Your task to perform on an android device: add a label to a message in the gmail app Image 0: 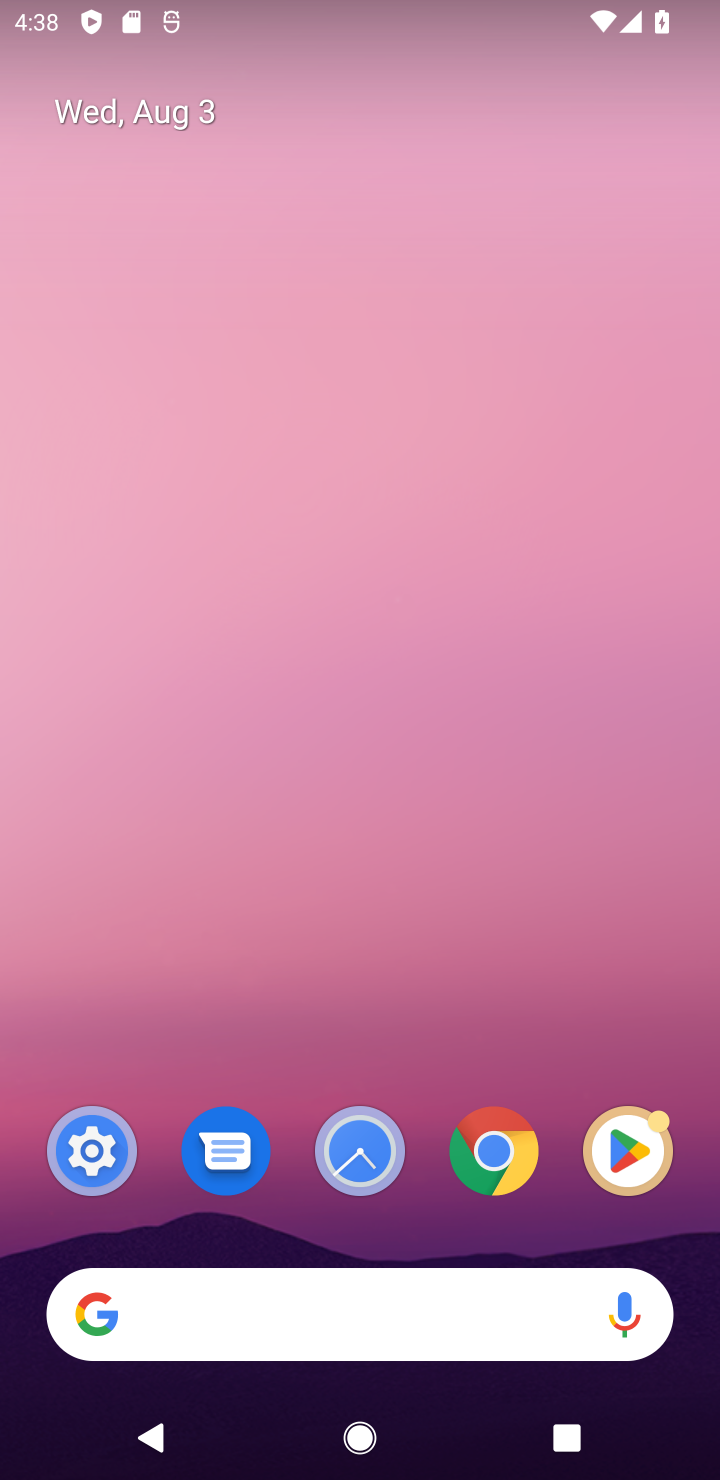
Step 0: drag from (472, 1373) to (501, 856)
Your task to perform on an android device: add a label to a message in the gmail app Image 1: 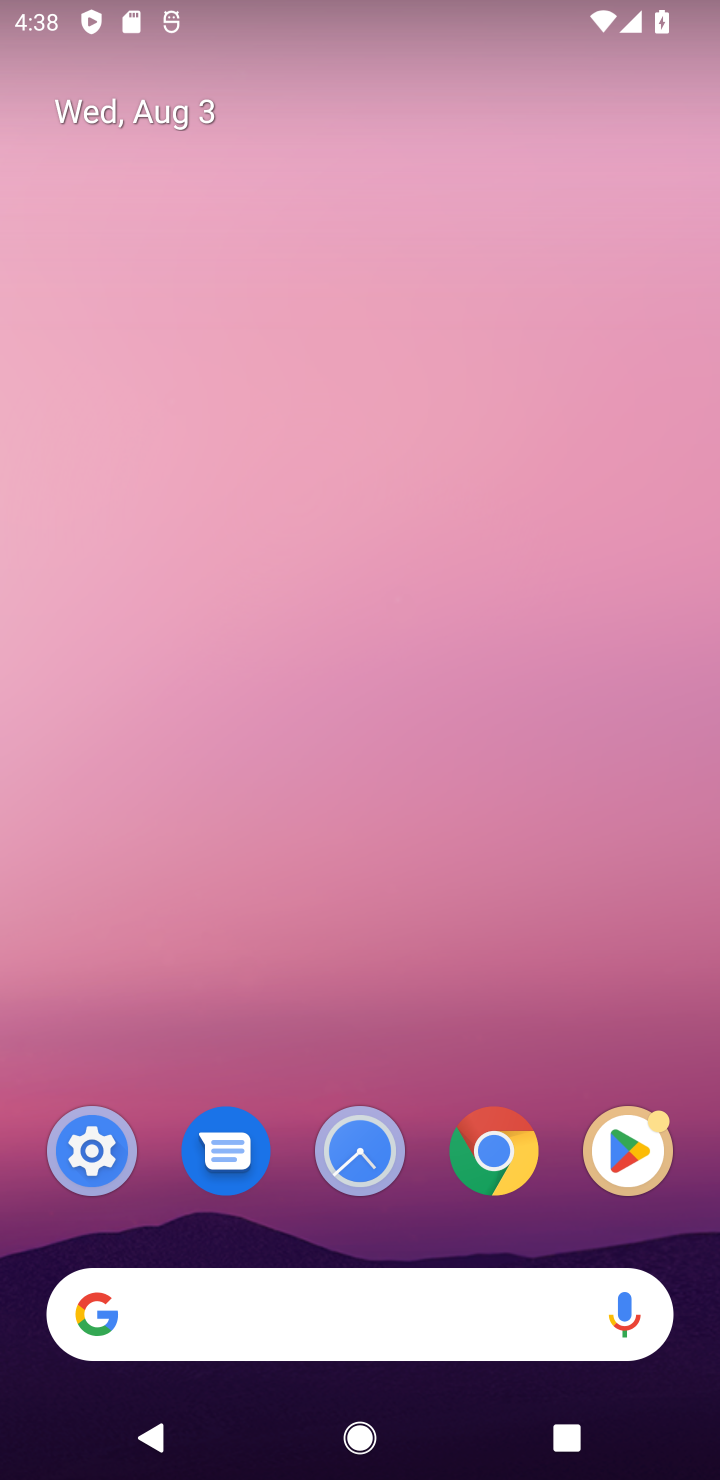
Step 1: drag from (466, 1069) to (358, 692)
Your task to perform on an android device: add a label to a message in the gmail app Image 2: 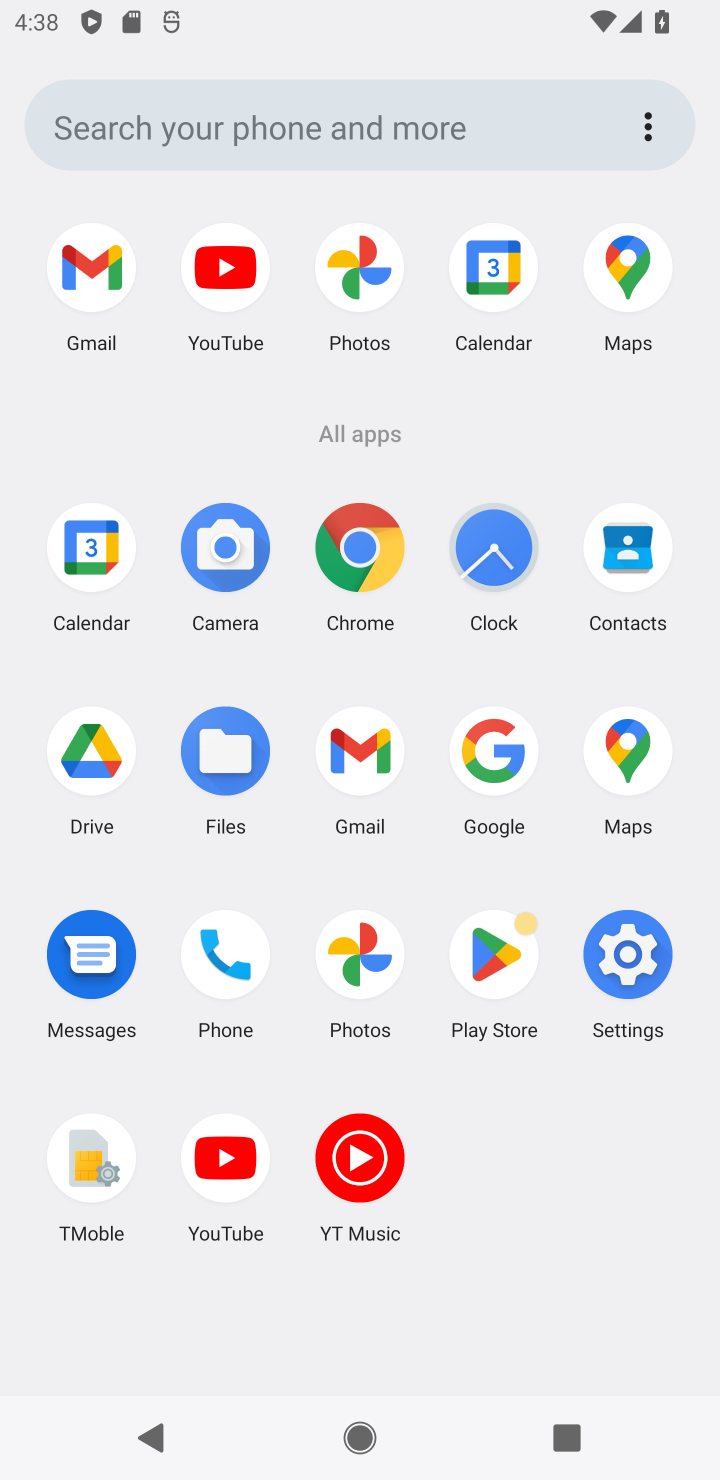
Step 2: drag from (314, 673) to (295, 516)
Your task to perform on an android device: add a label to a message in the gmail app Image 3: 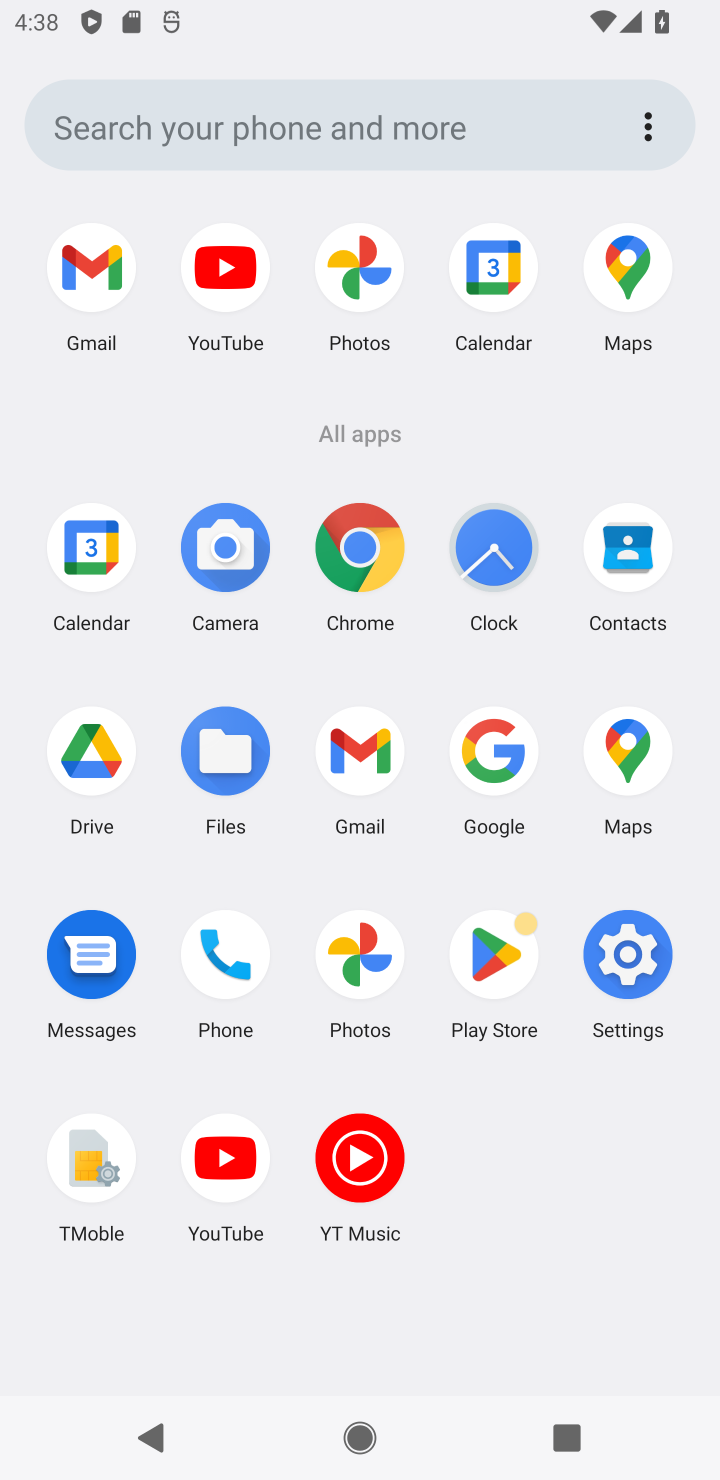
Step 3: click (136, 131)
Your task to perform on an android device: add a label to a message in the gmail app Image 4: 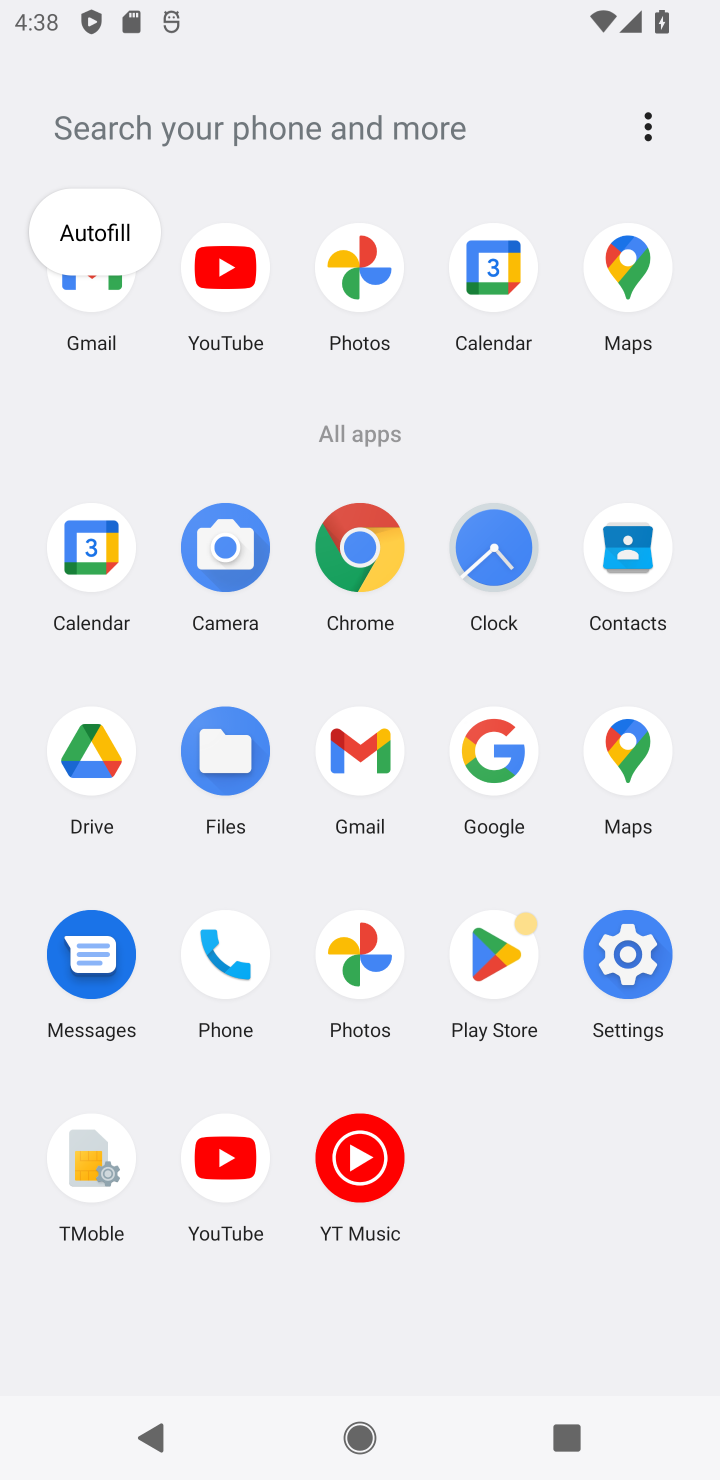
Step 4: click (356, 750)
Your task to perform on an android device: add a label to a message in the gmail app Image 5: 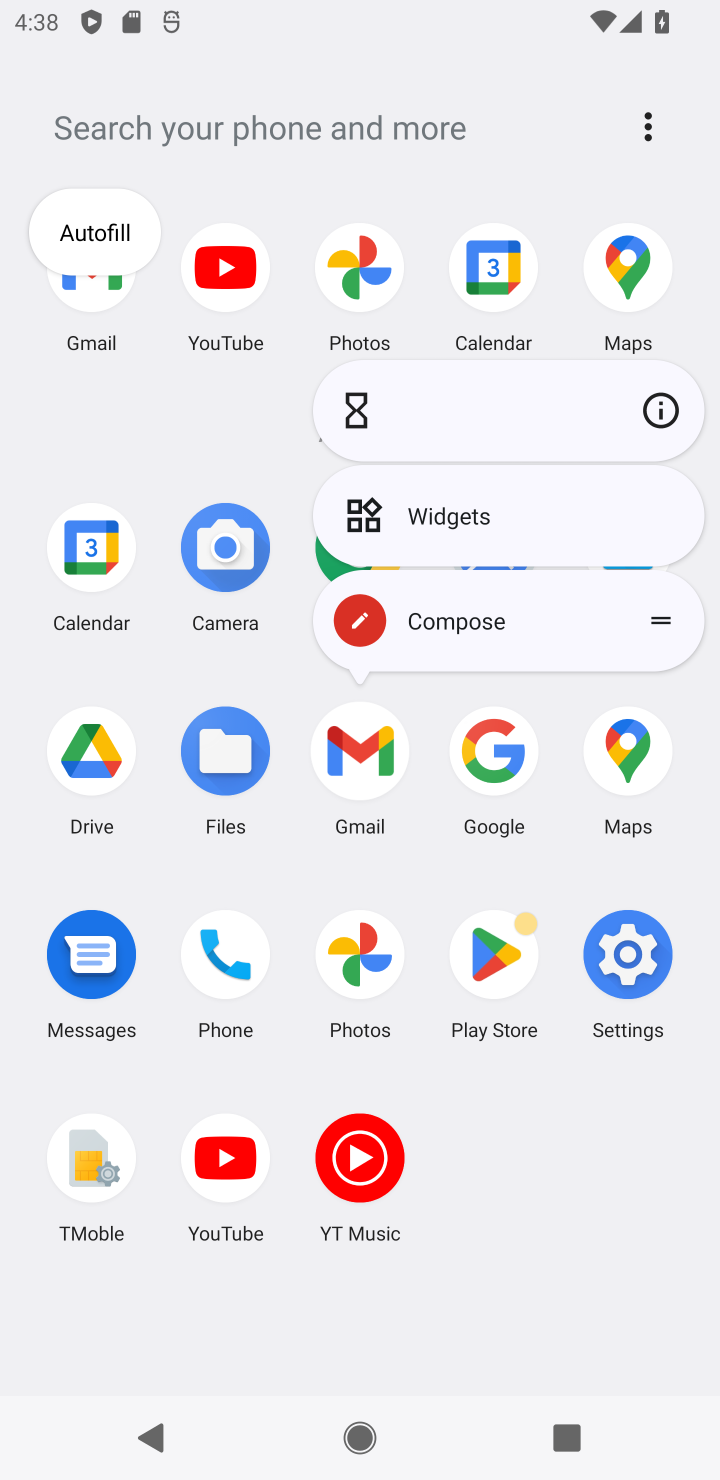
Step 5: click (356, 750)
Your task to perform on an android device: add a label to a message in the gmail app Image 6: 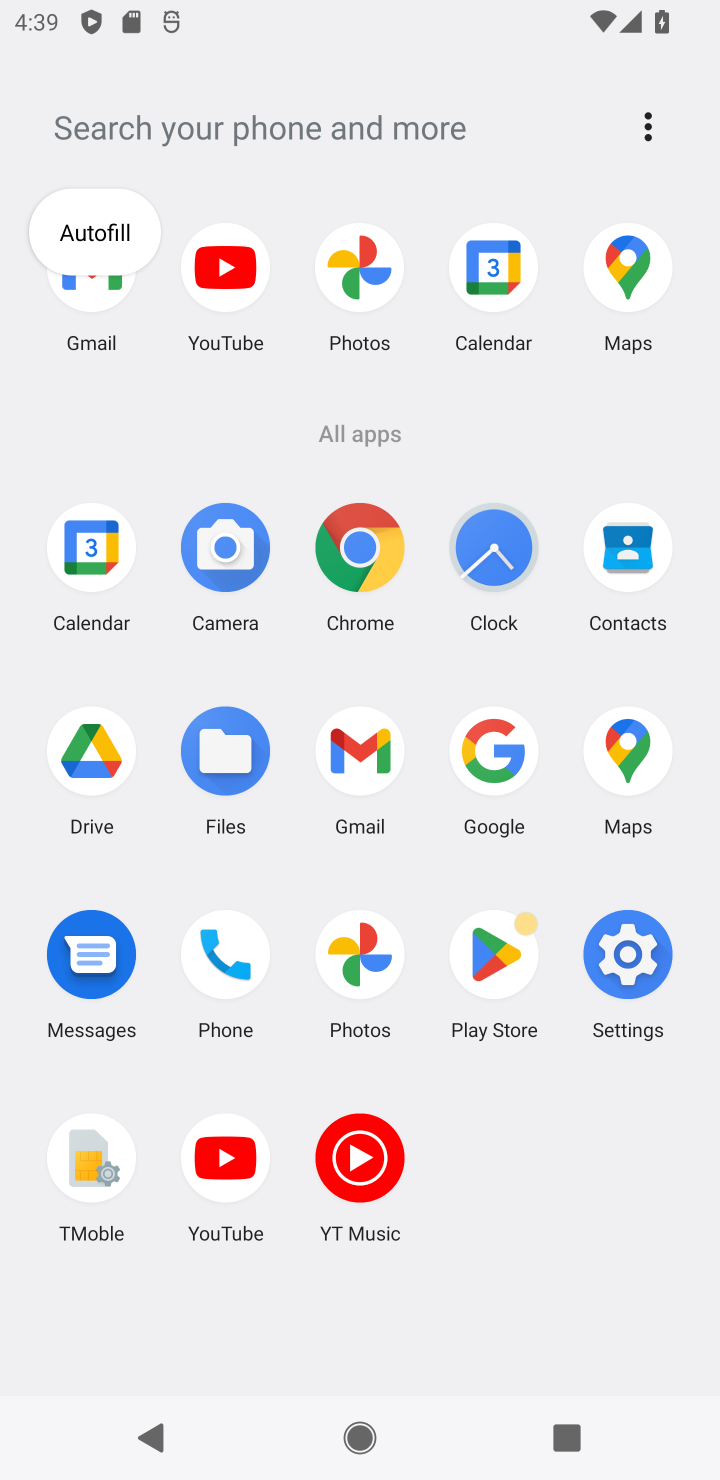
Step 6: click (374, 766)
Your task to perform on an android device: add a label to a message in the gmail app Image 7: 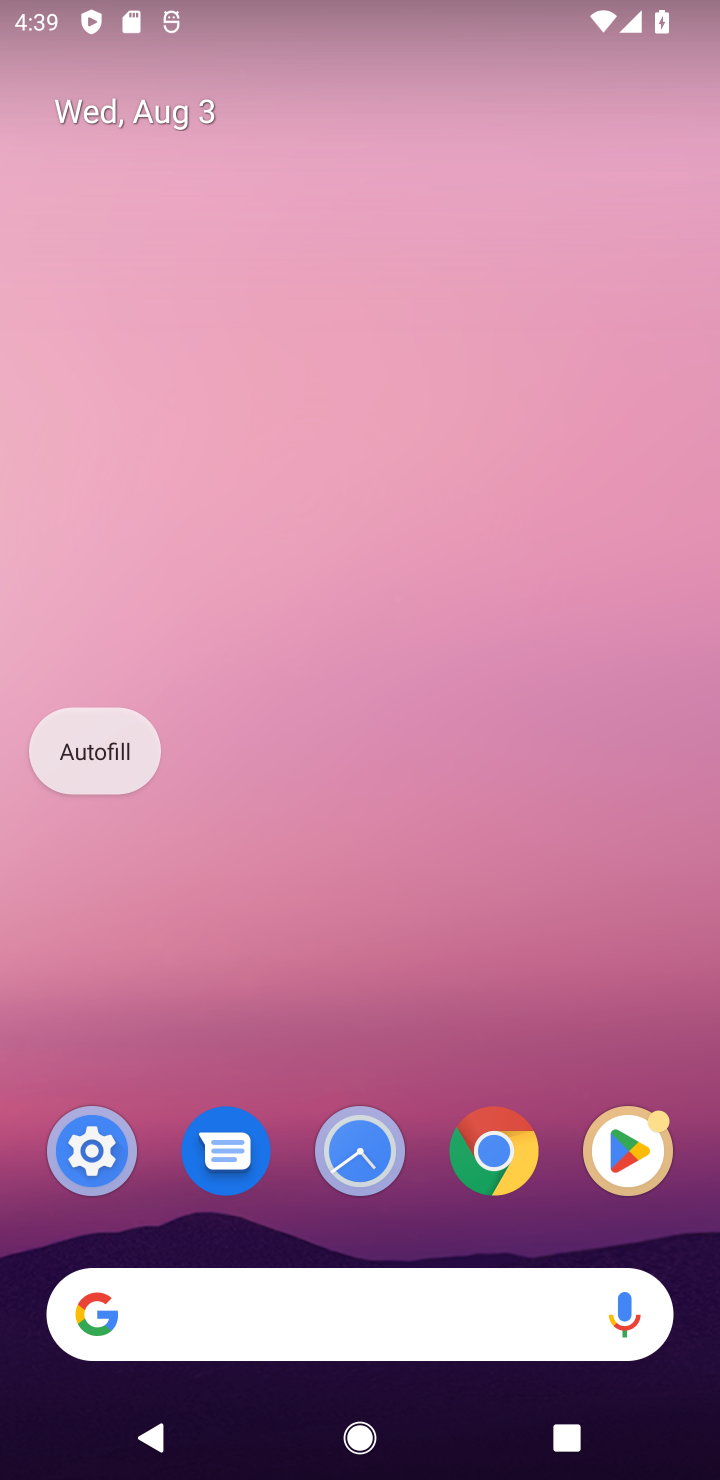
Step 7: click (345, 741)
Your task to perform on an android device: add a label to a message in the gmail app Image 8: 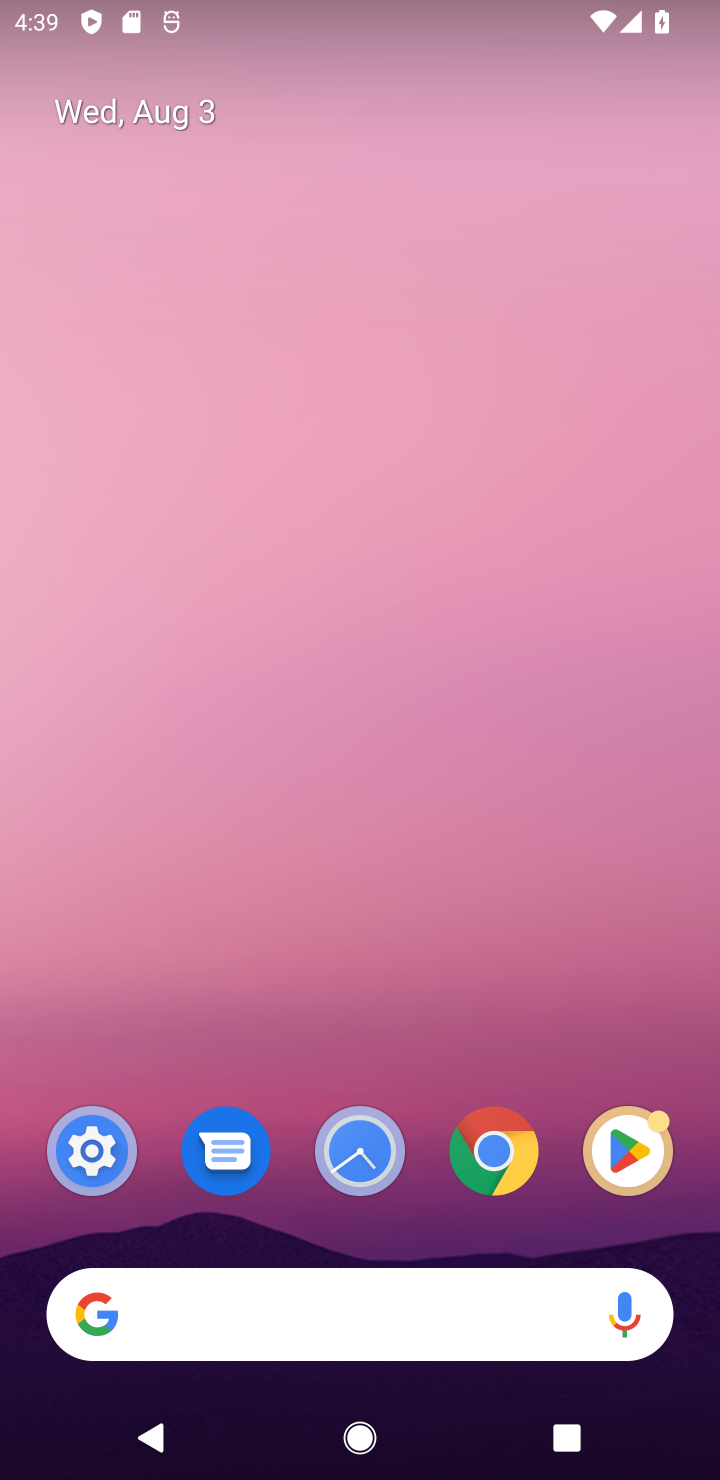
Step 8: drag from (461, 1183) to (264, 382)
Your task to perform on an android device: add a label to a message in the gmail app Image 9: 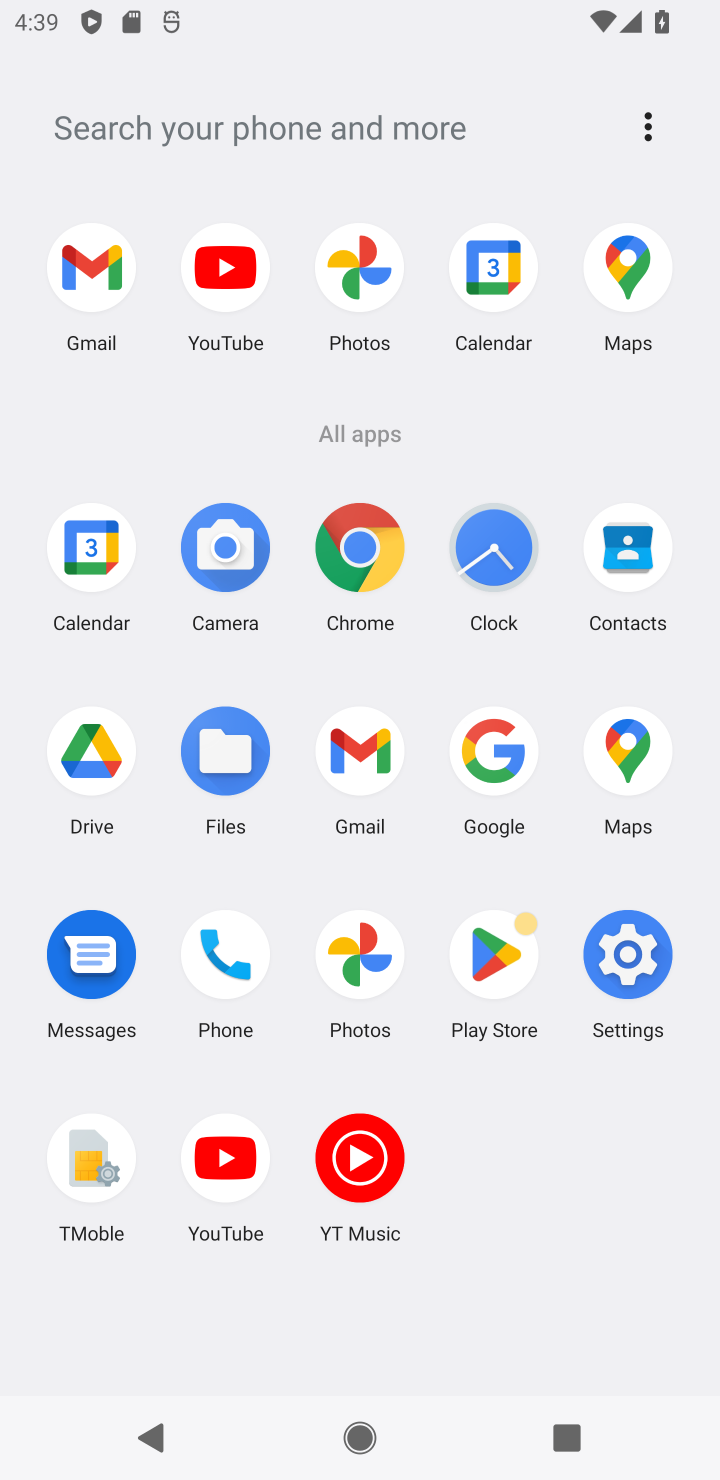
Step 9: click (343, 762)
Your task to perform on an android device: add a label to a message in the gmail app Image 10: 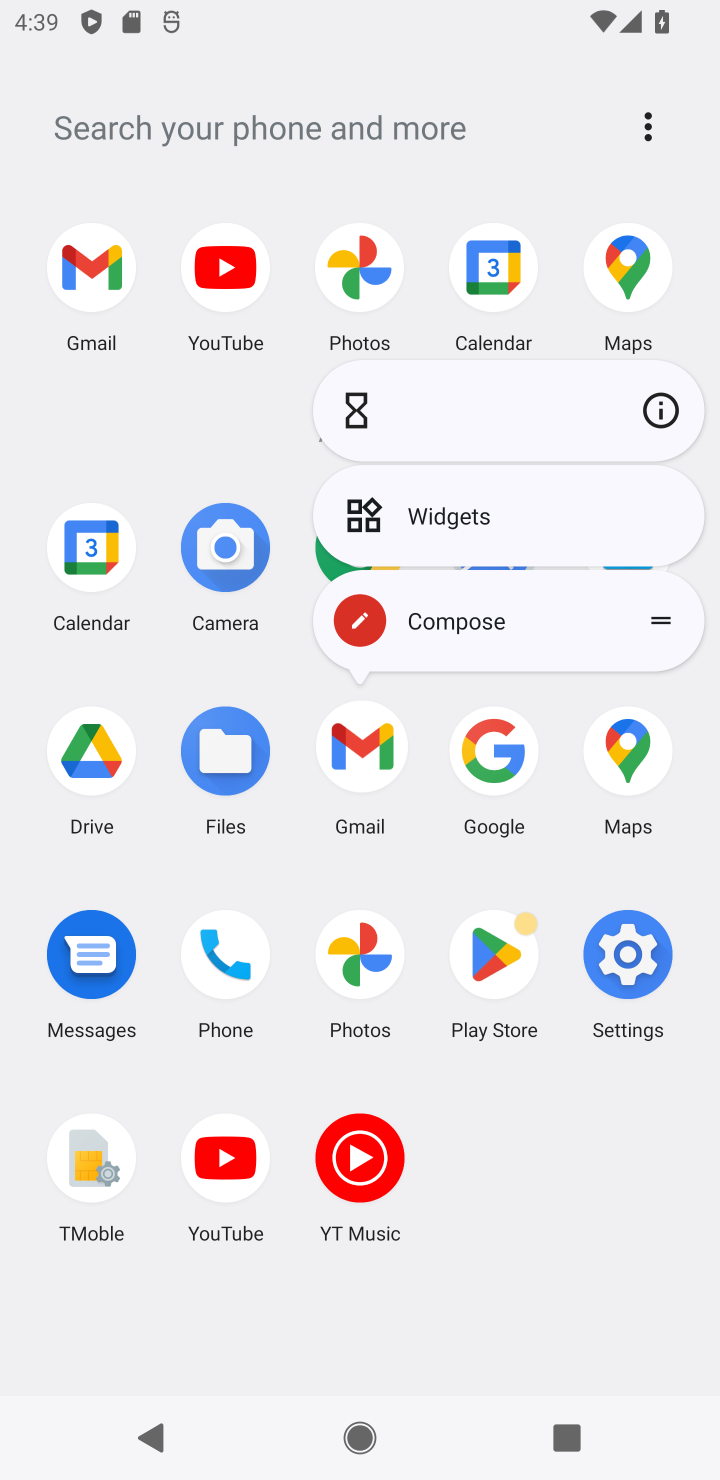
Step 10: click (355, 749)
Your task to perform on an android device: add a label to a message in the gmail app Image 11: 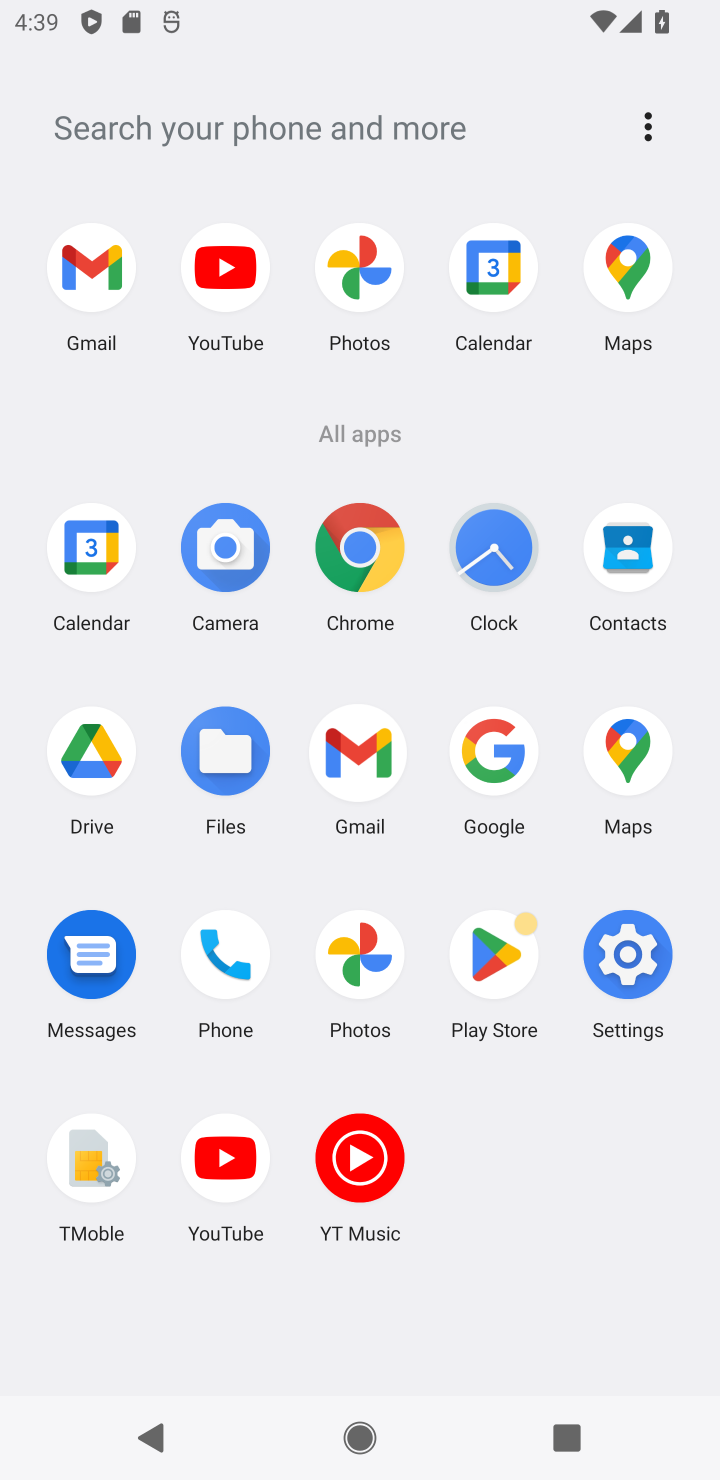
Step 11: click (338, 766)
Your task to perform on an android device: add a label to a message in the gmail app Image 12: 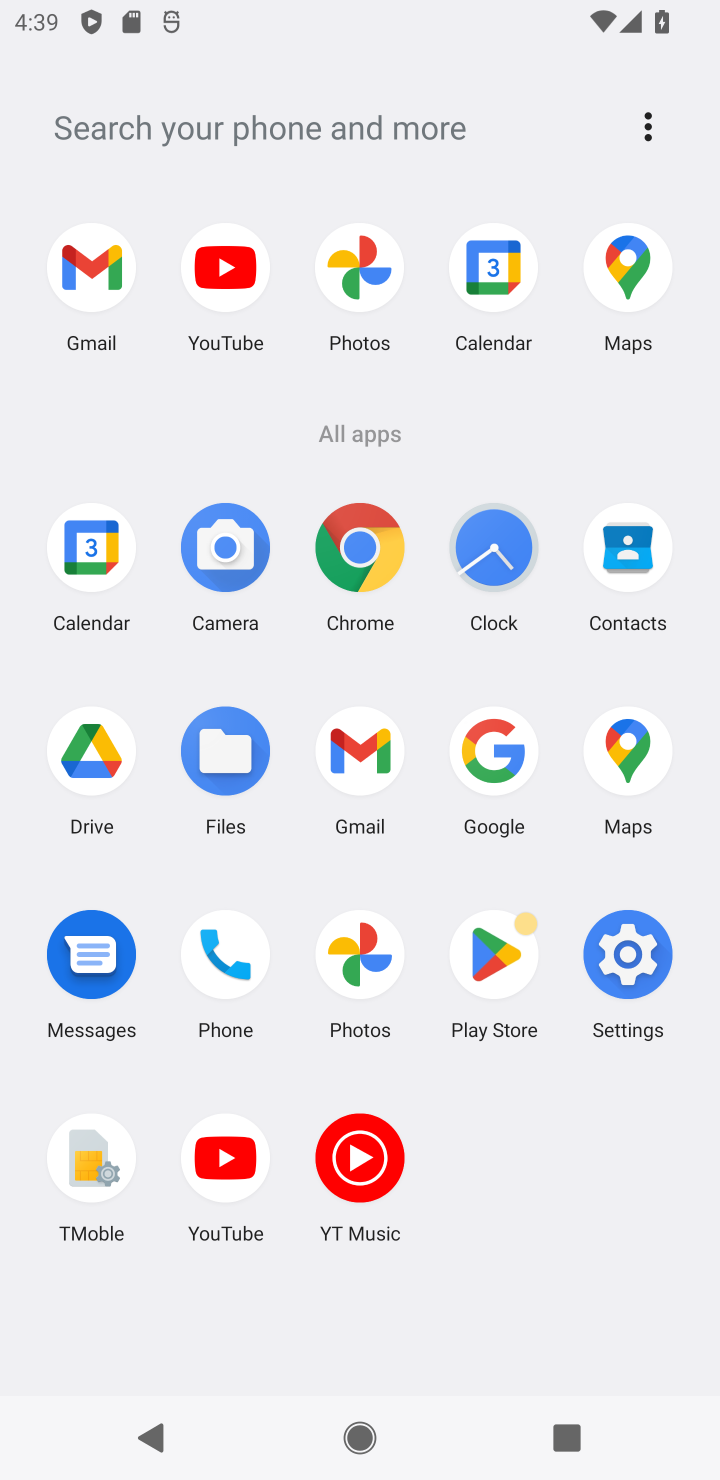
Step 12: click (338, 766)
Your task to perform on an android device: add a label to a message in the gmail app Image 13: 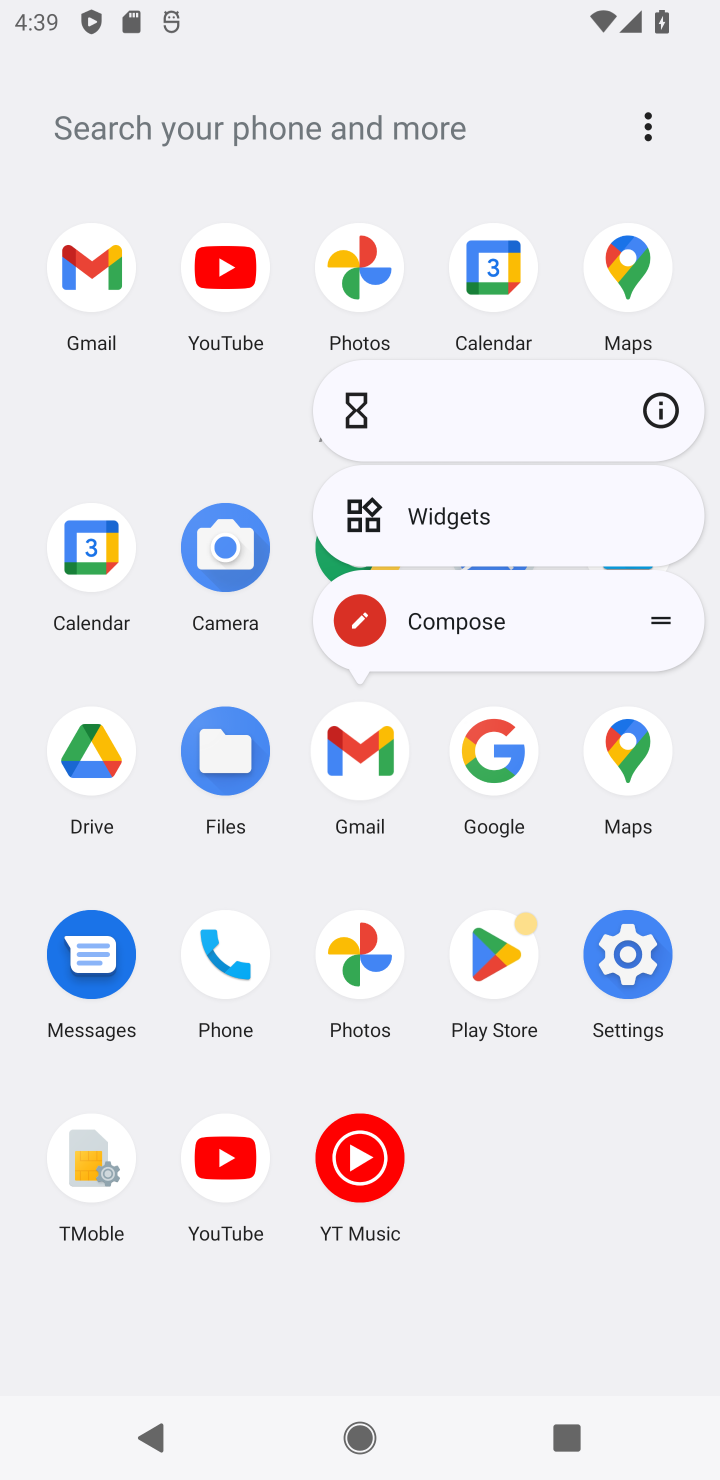
Step 13: click (363, 748)
Your task to perform on an android device: add a label to a message in the gmail app Image 14: 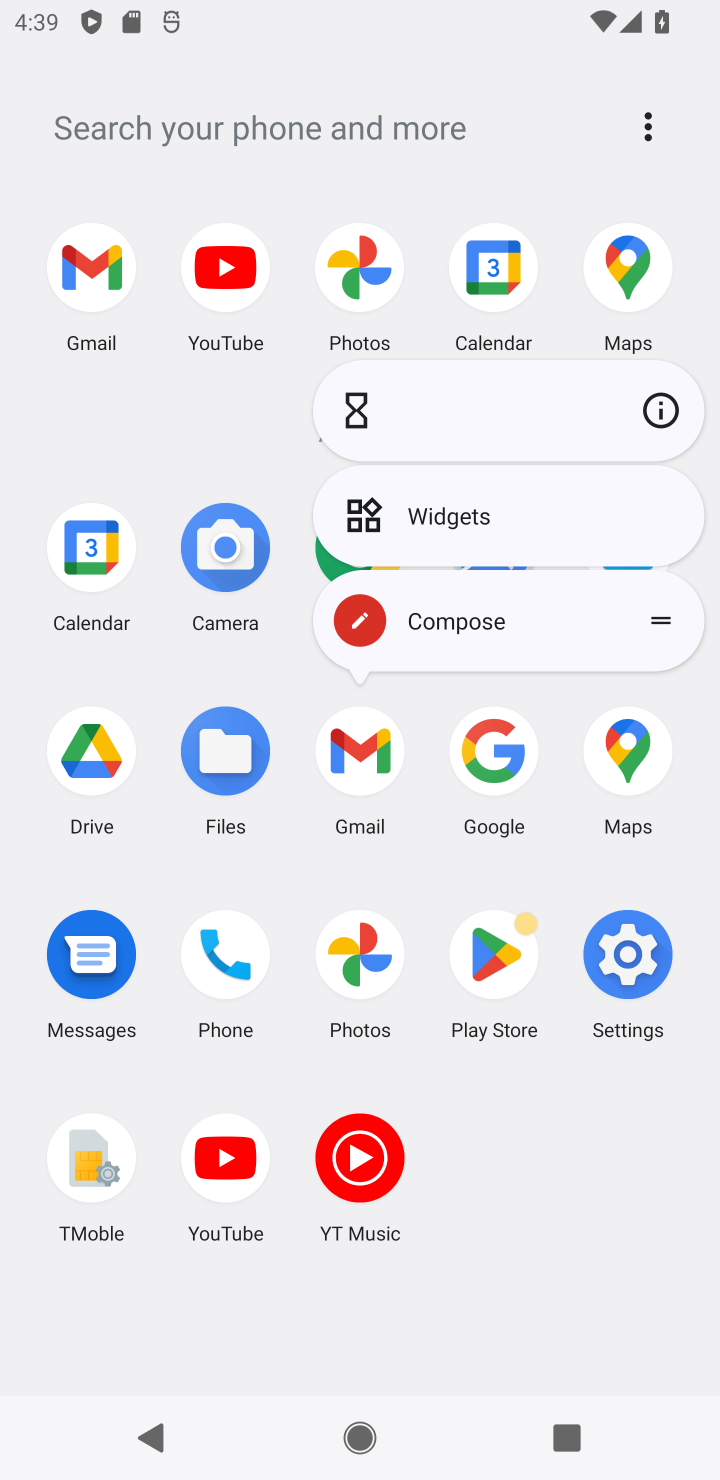
Step 14: click (367, 746)
Your task to perform on an android device: add a label to a message in the gmail app Image 15: 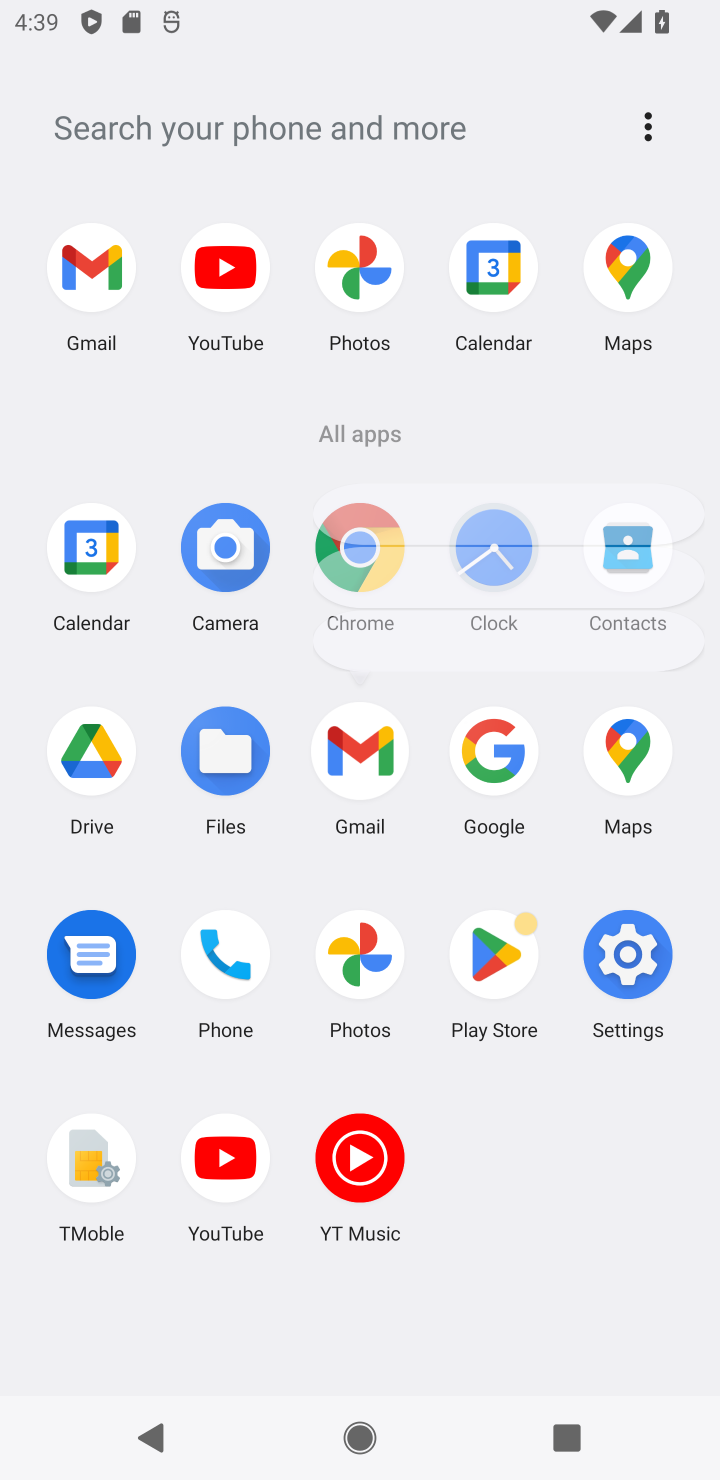
Step 15: click (429, 637)
Your task to perform on an android device: add a label to a message in the gmail app Image 16: 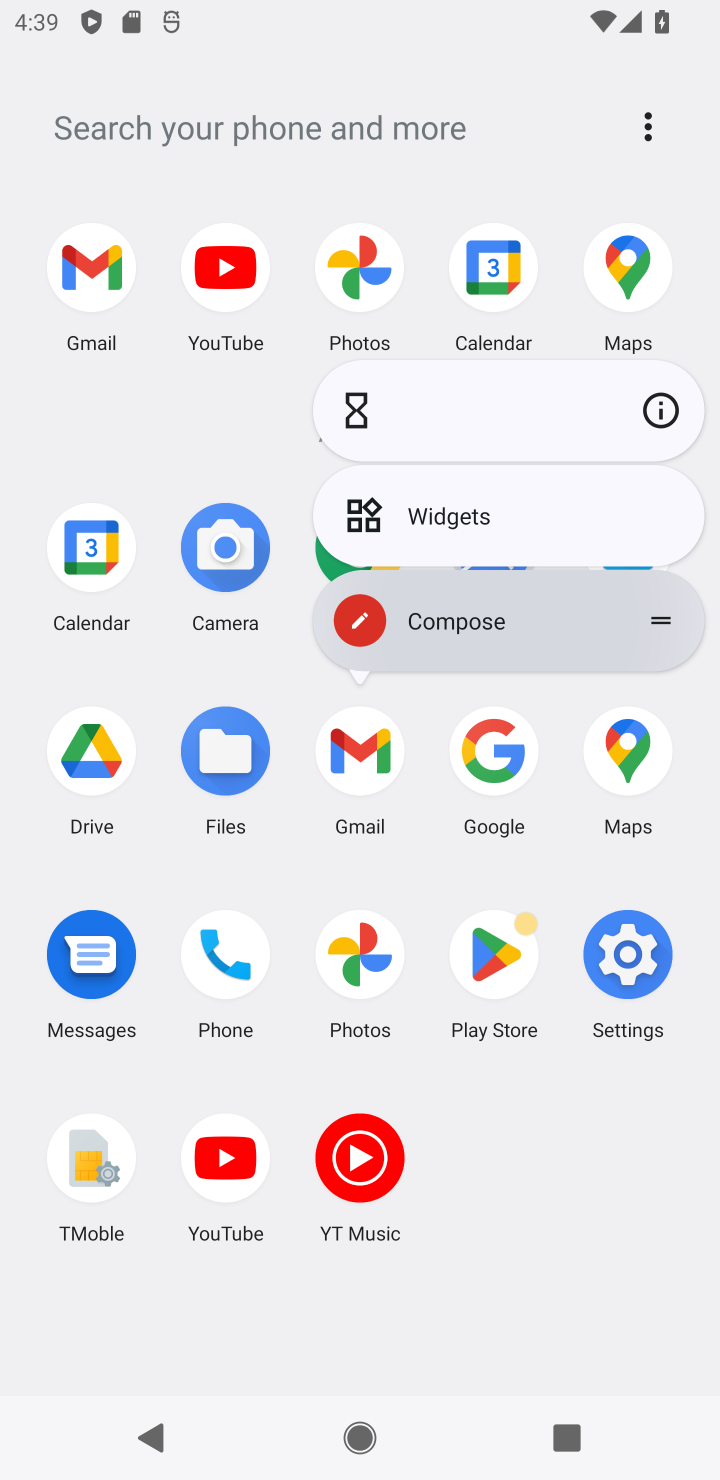
Step 16: click (446, 614)
Your task to perform on an android device: add a label to a message in the gmail app Image 17: 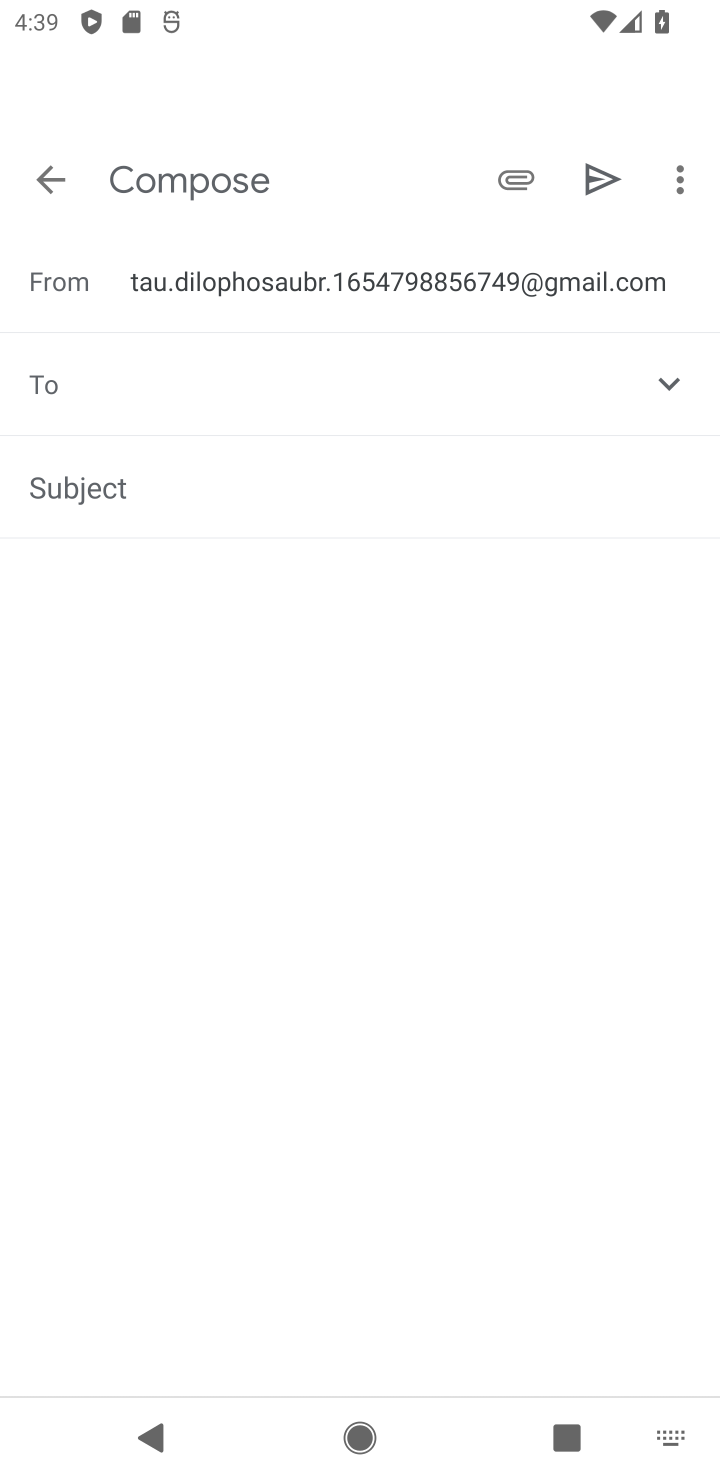
Step 17: click (40, 76)
Your task to perform on an android device: add a label to a message in the gmail app Image 18: 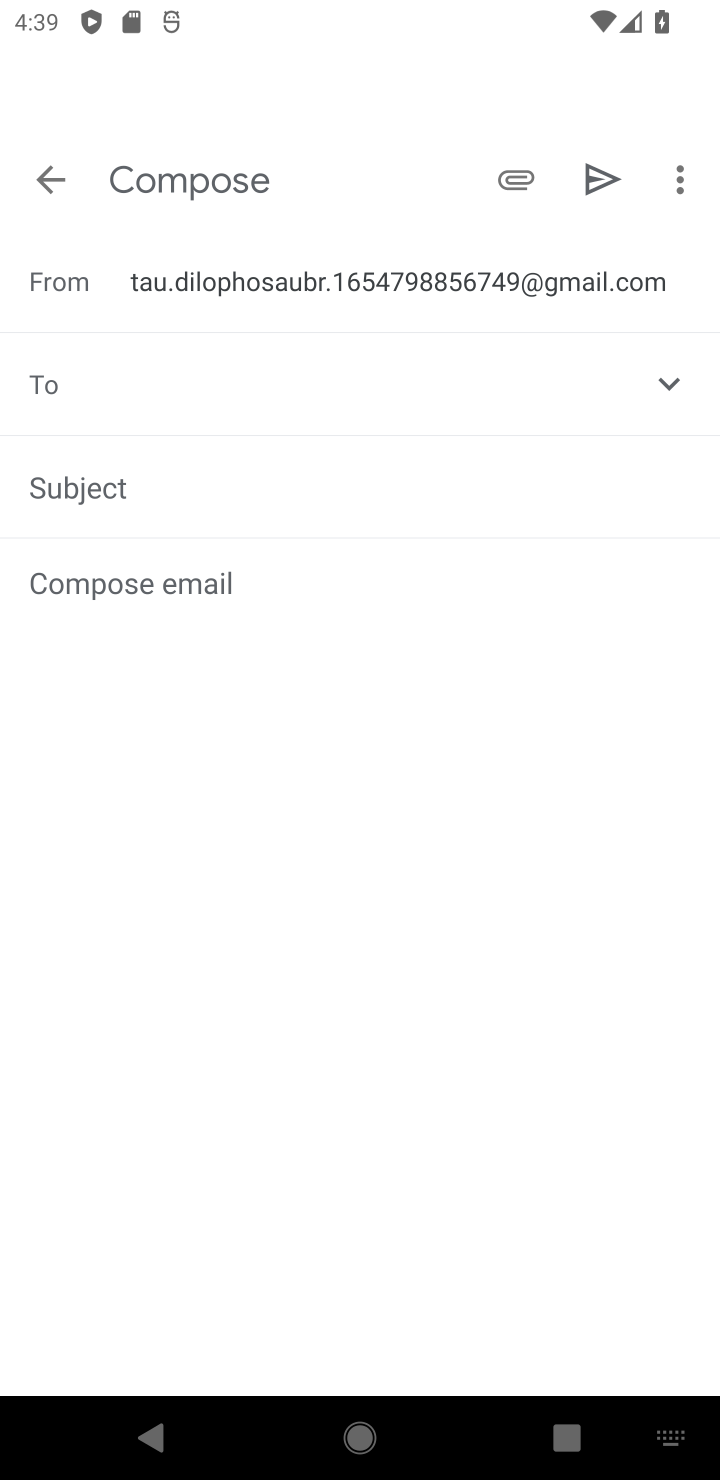
Step 18: click (57, 176)
Your task to perform on an android device: add a label to a message in the gmail app Image 19: 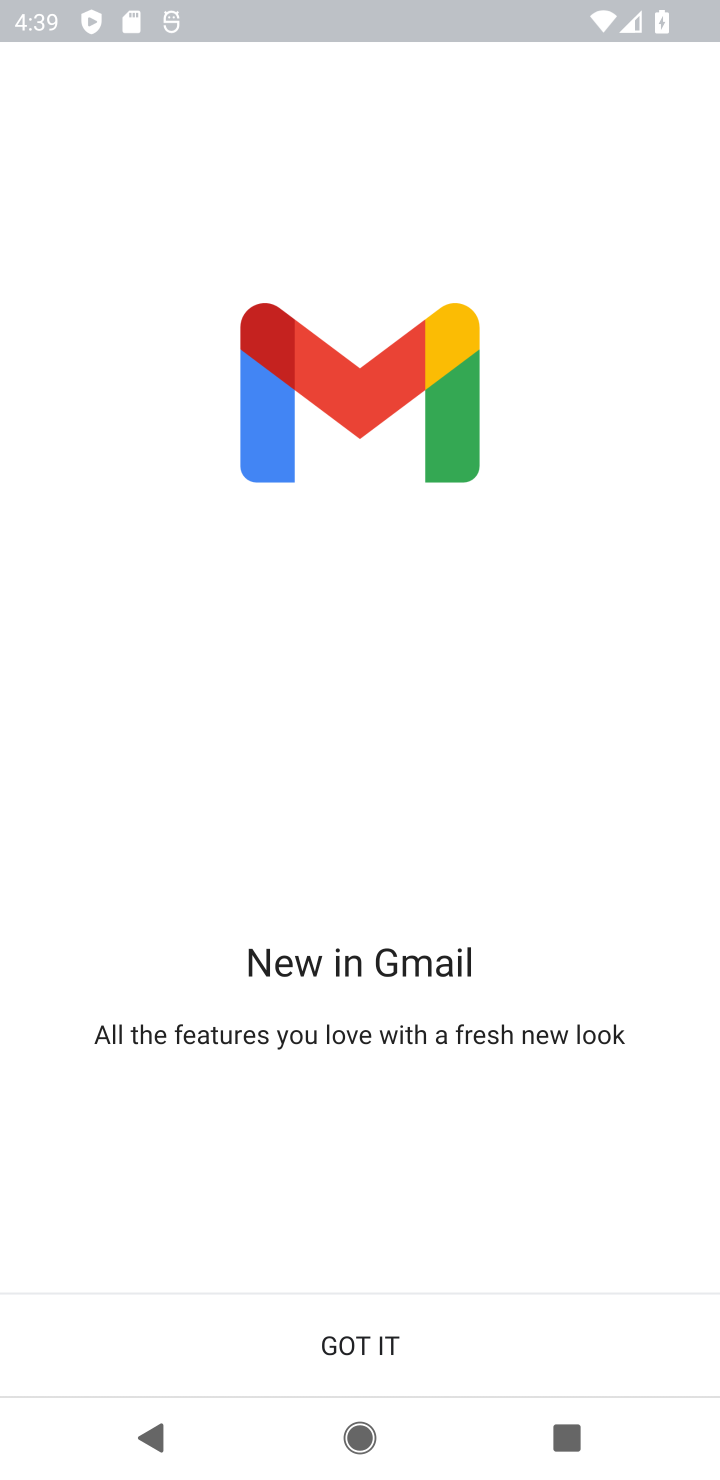
Step 19: click (381, 1372)
Your task to perform on an android device: add a label to a message in the gmail app Image 20: 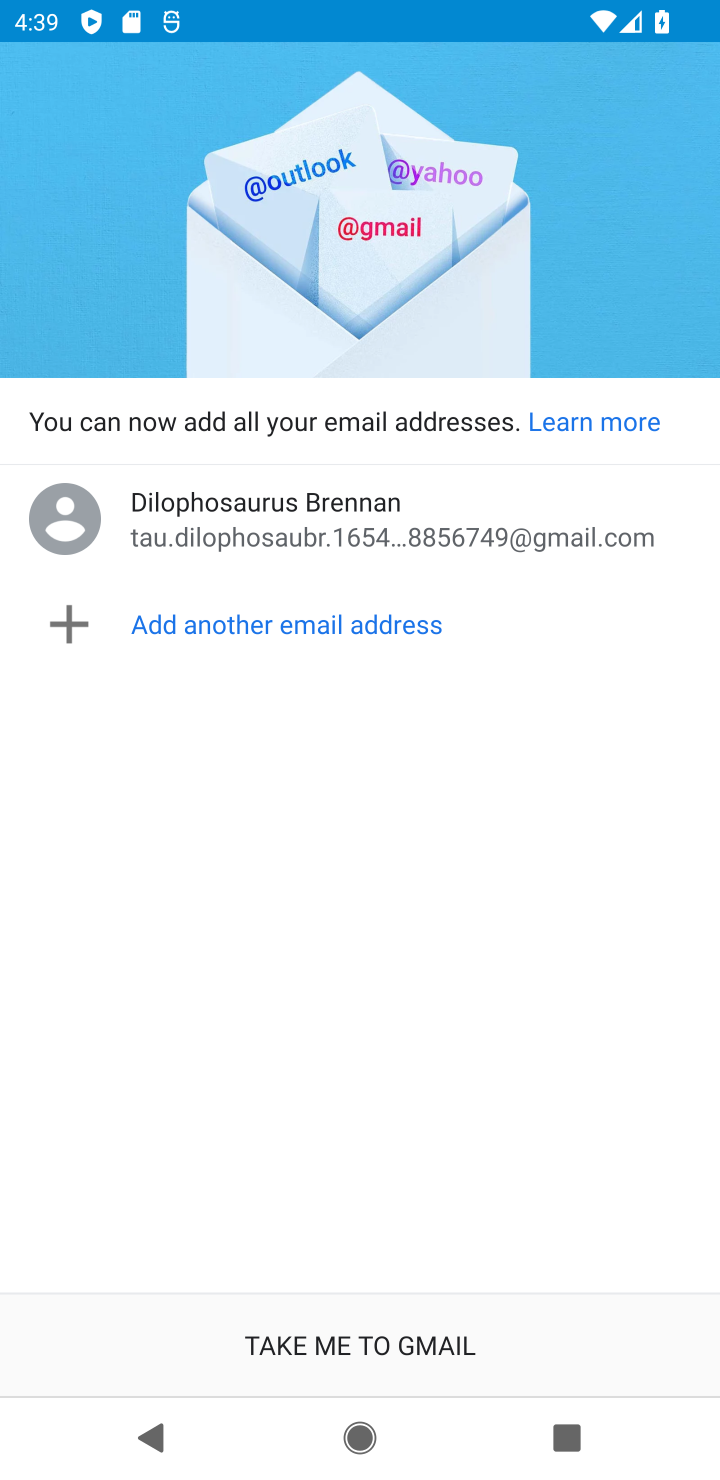
Step 20: click (364, 1330)
Your task to perform on an android device: add a label to a message in the gmail app Image 21: 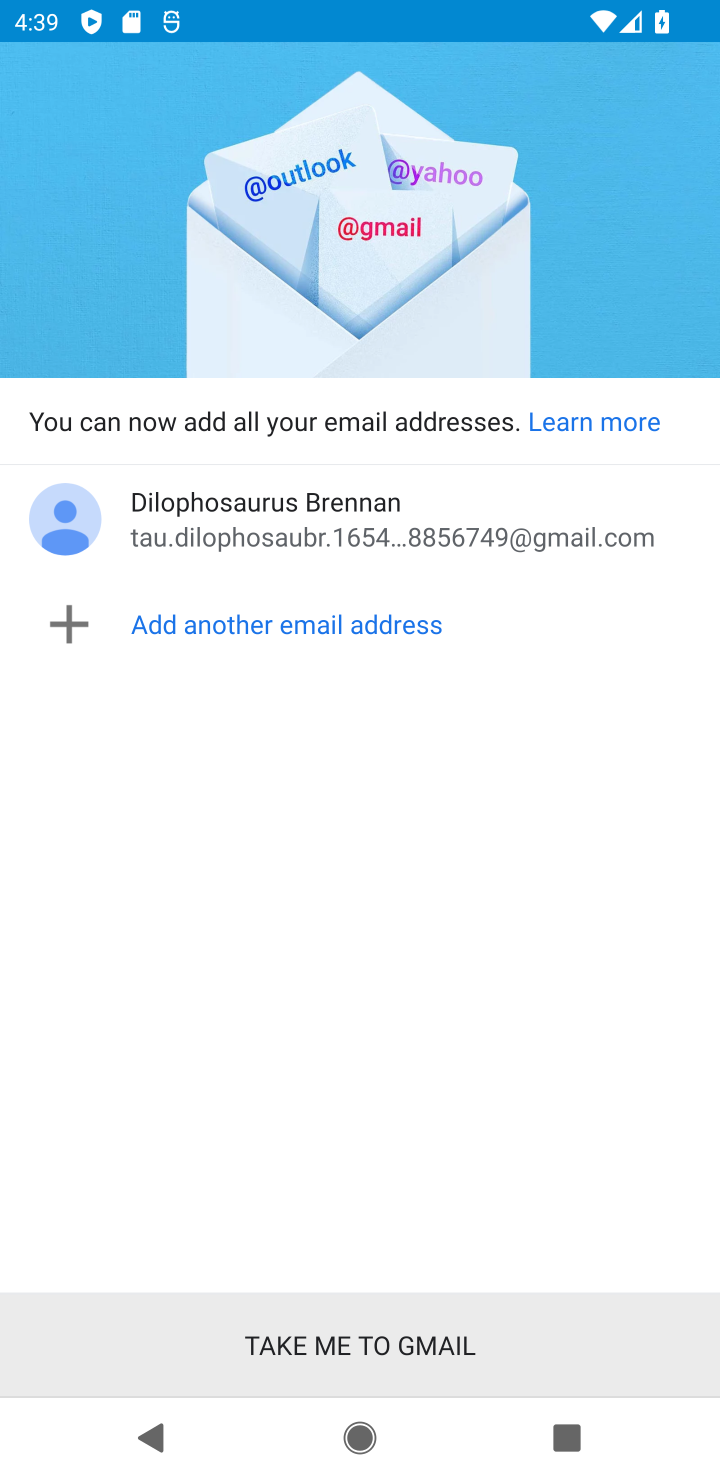
Step 21: click (364, 1330)
Your task to perform on an android device: add a label to a message in the gmail app Image 22: 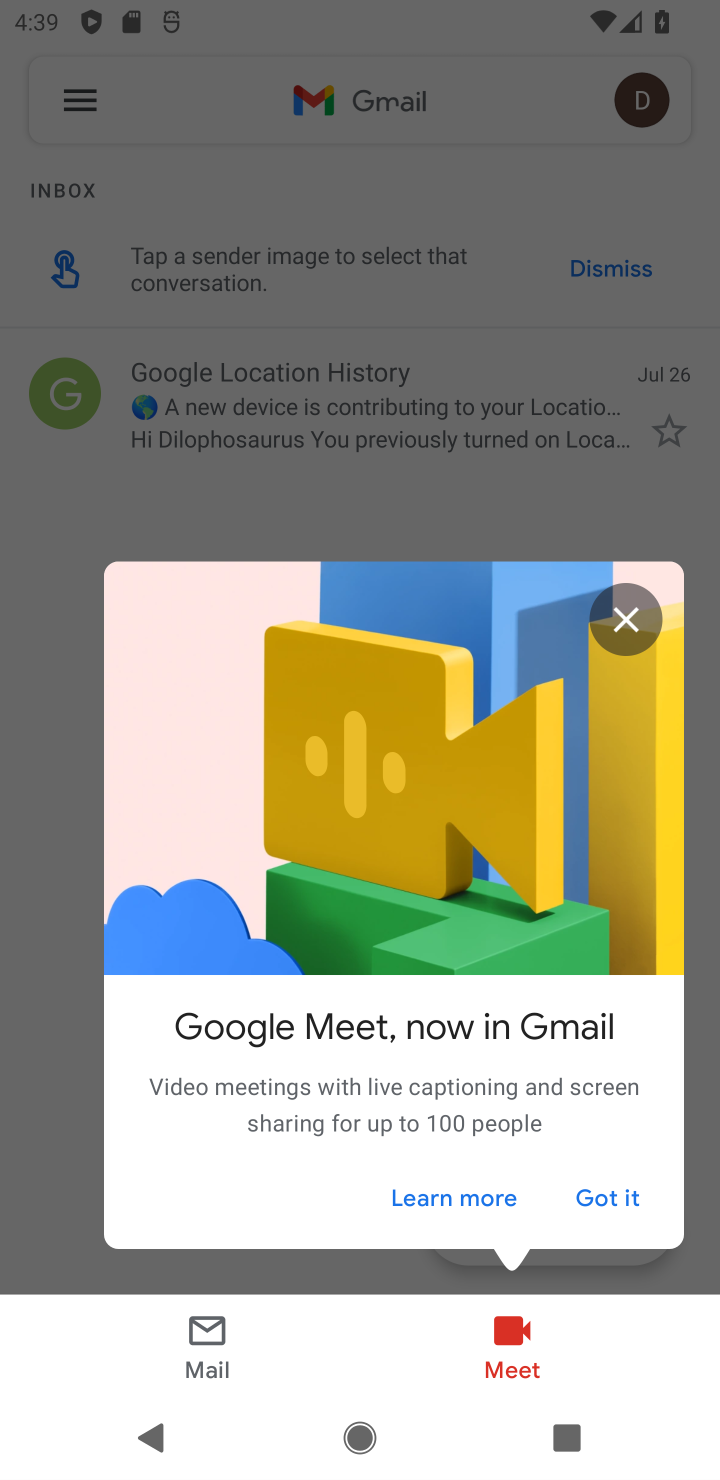
Step 22: click (643, 609)
Your task to perform on an android device: add a label to a message in the gmail app Image 23: 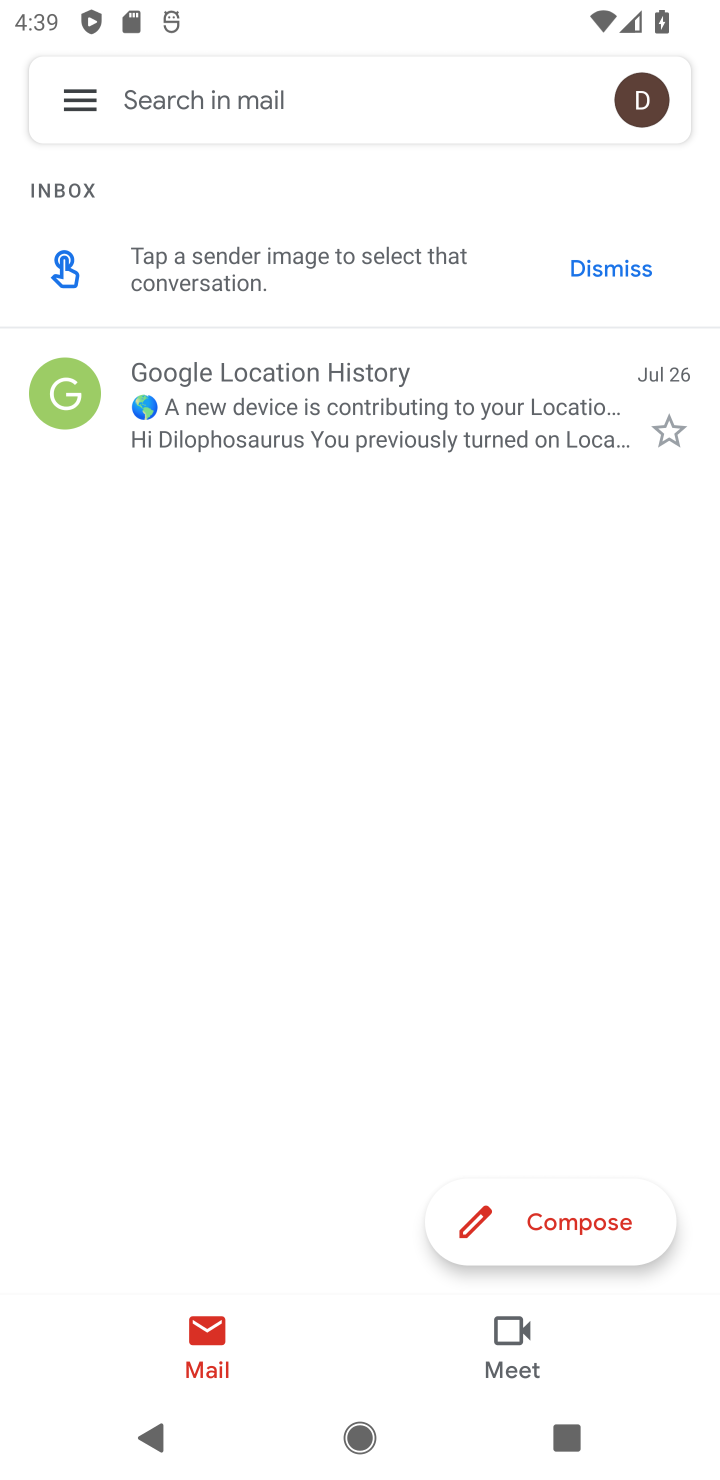
Step 23: click (569, 439)
Your task to perform on an android device: add a label to a message in the gmail app Image 24: 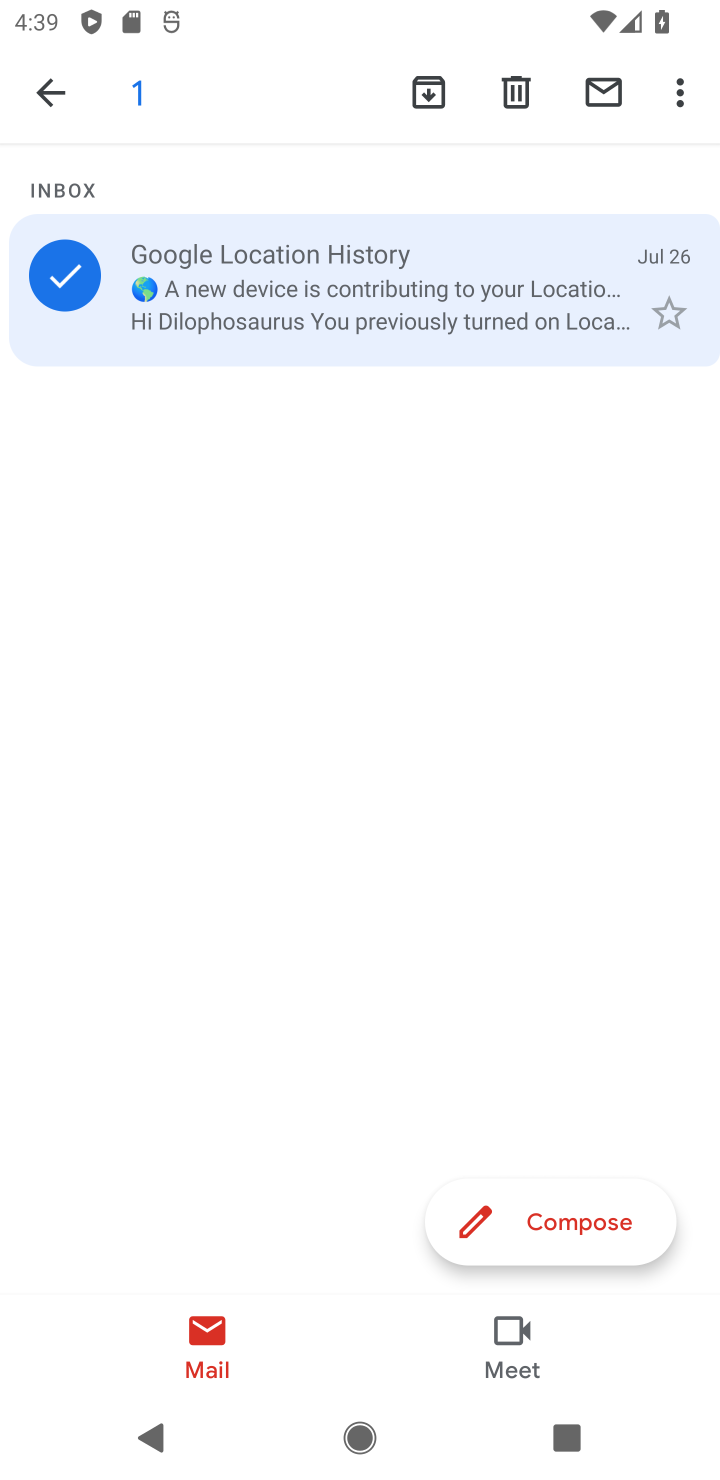
Step 24: click (680, 71)
Your task to perform on an android device: add a label to a message in the gmail app Image 25: 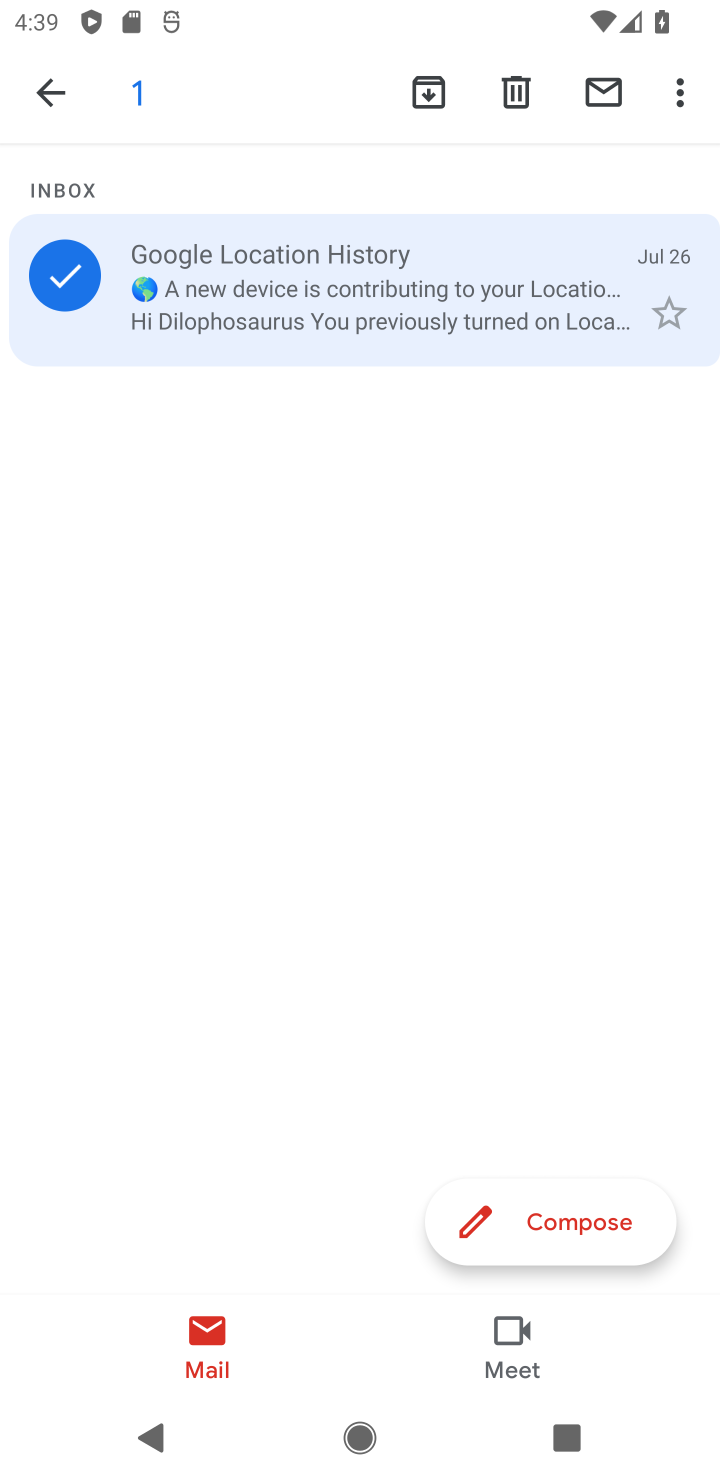
Step 25: click (681, 77)
Your task to perform on an android device: add a label to a message in the gmail app Image 26: 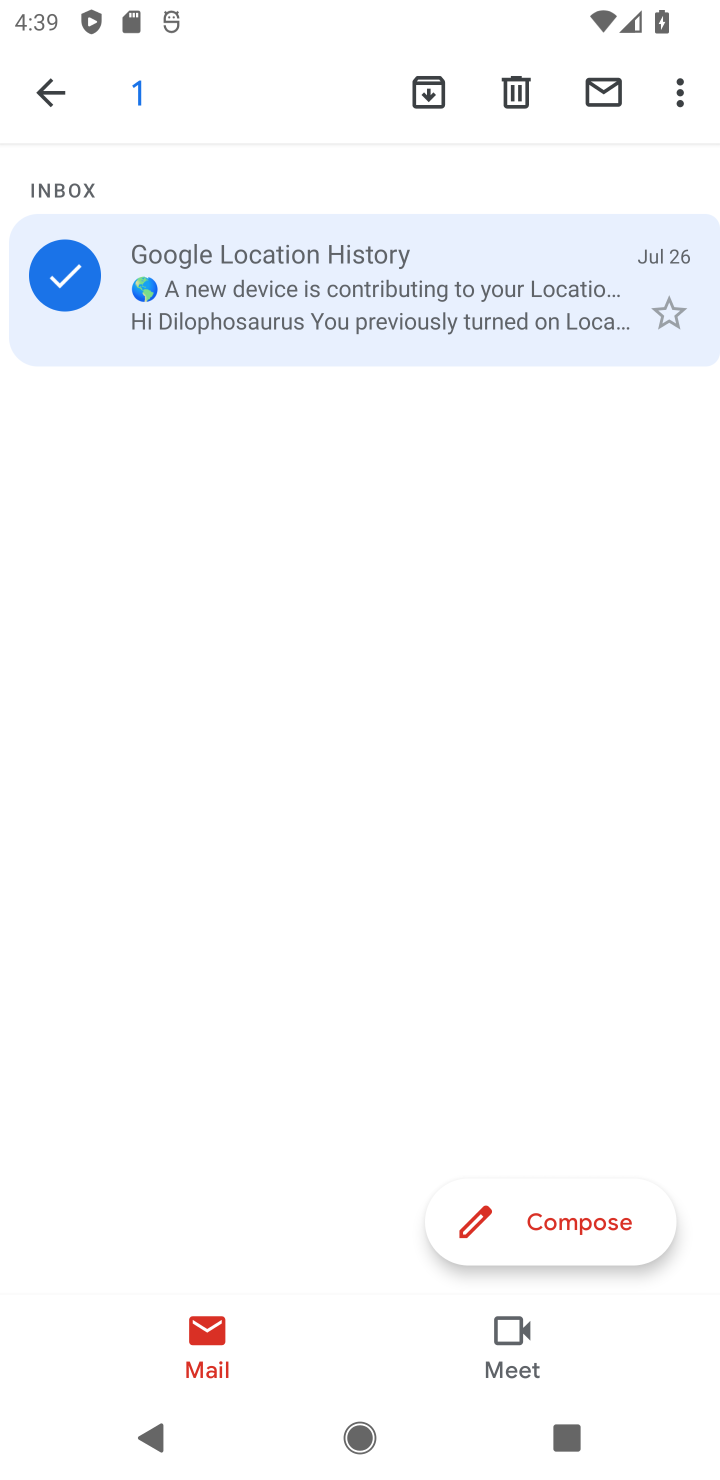
Step 26: click (681, 77)
Your task to perform on an android device: add a label to a message in the gmail app Image 27: 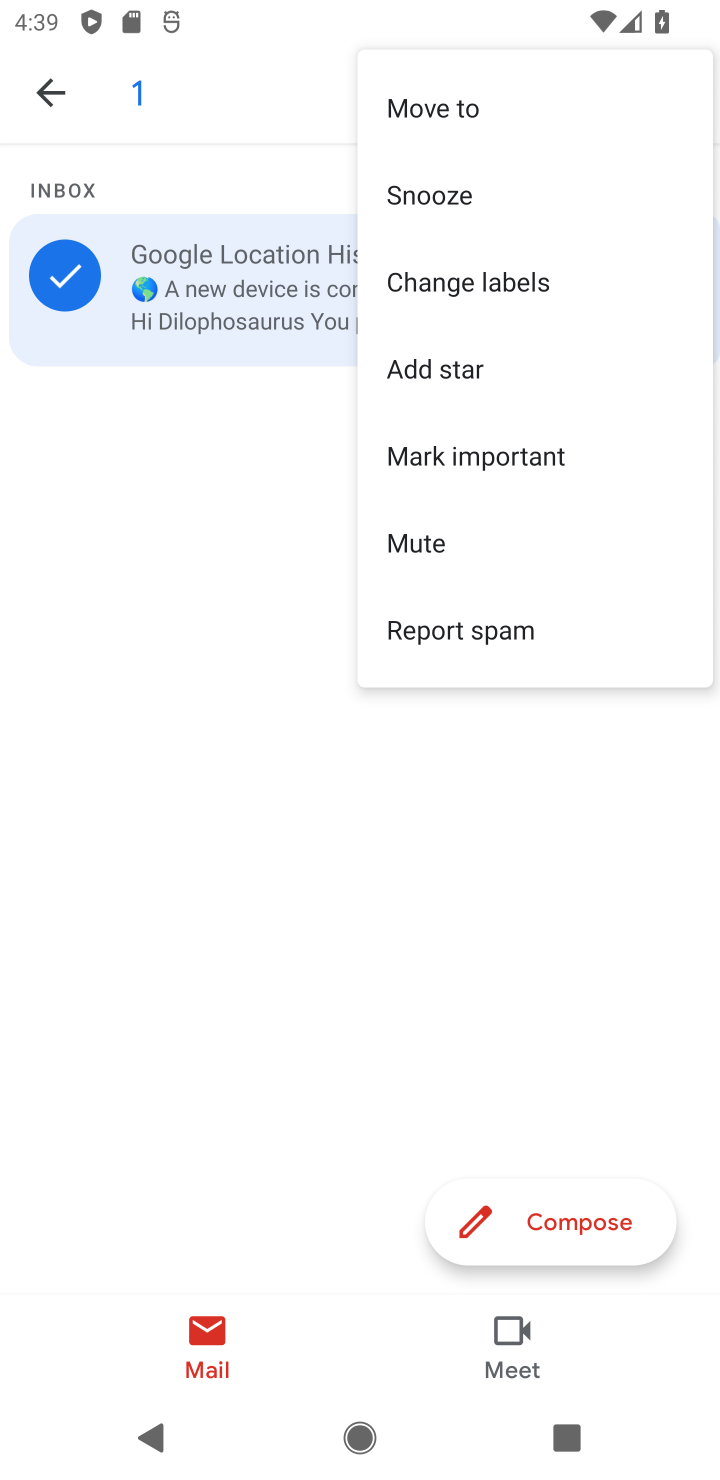
Step 27: click (435, 285)
Your task to perform on an android device: add a label to a message in the gmail app Image 28: 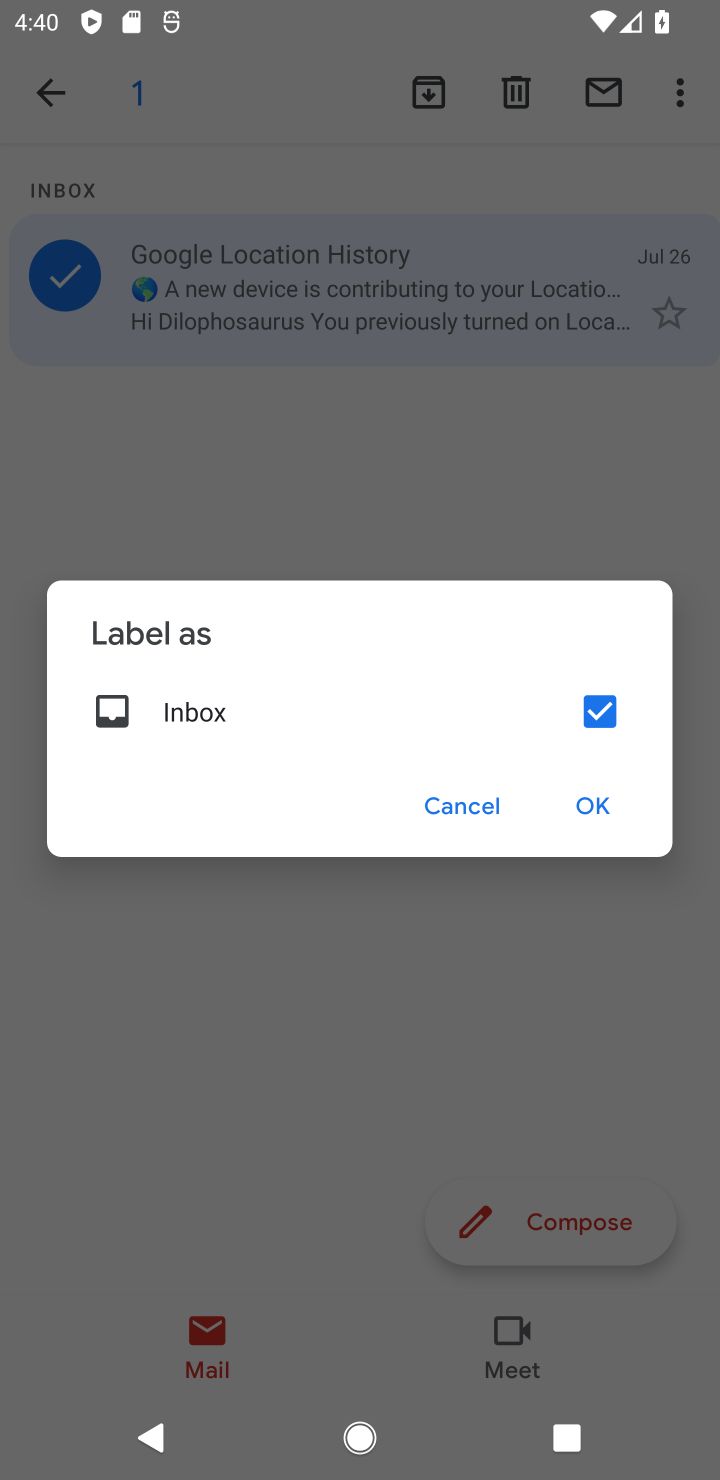
Step 28: click (596, 808)
Your task to perform on an android device: add a label to a message in the gmail app Image 29: 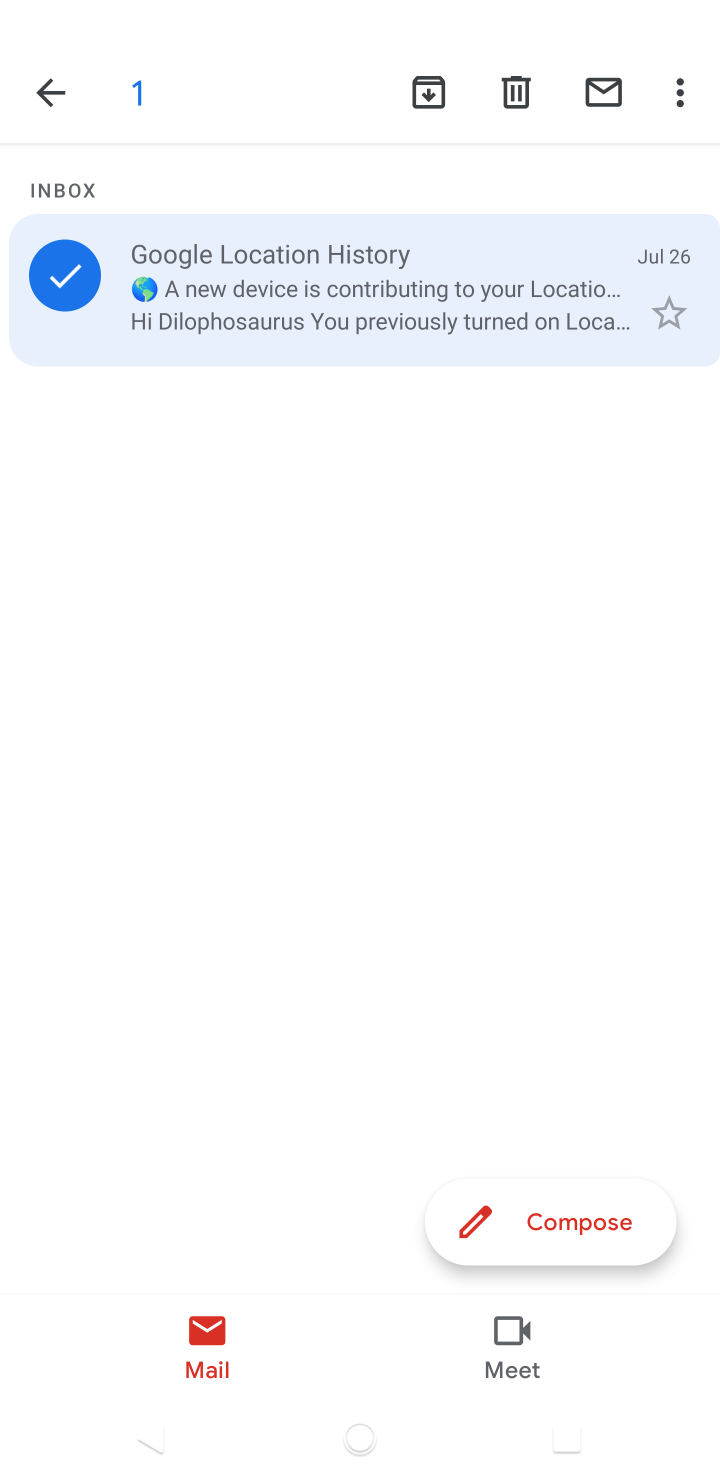
Step 29: task complete